Your task to perform on an android device: Show me the alarms in the clock app Image 0: 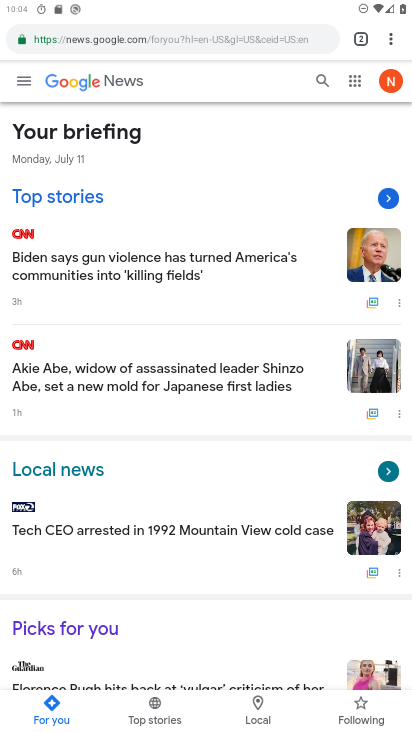
Step 0: press home button
Your task to perform on an android device: Show me the alarms in the clock app Image 1: 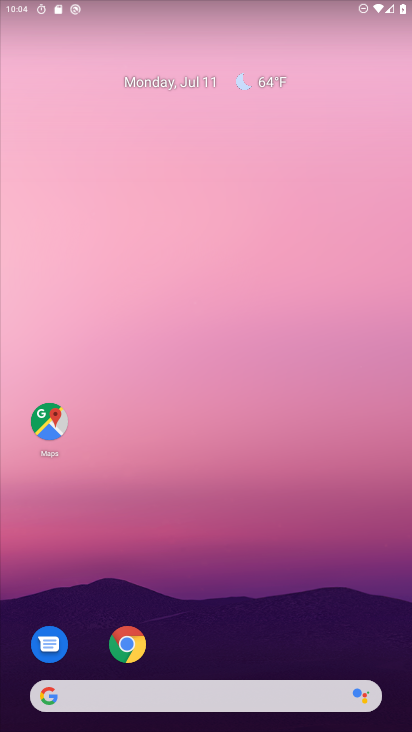
Step 1: drag from (311, 580) to (255, 191)
Your task to perform on an android device: Show me the alarms in the clock app Image 2: 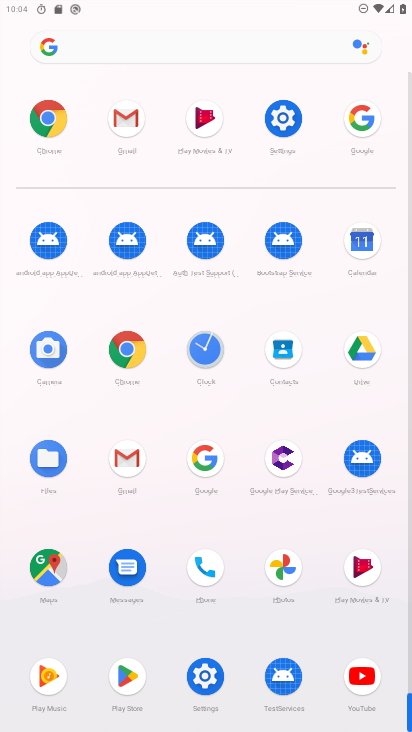
Step 2: click (214, 346)
Your task to perform on an android device: Show me the alarms in the clock app Image 3: 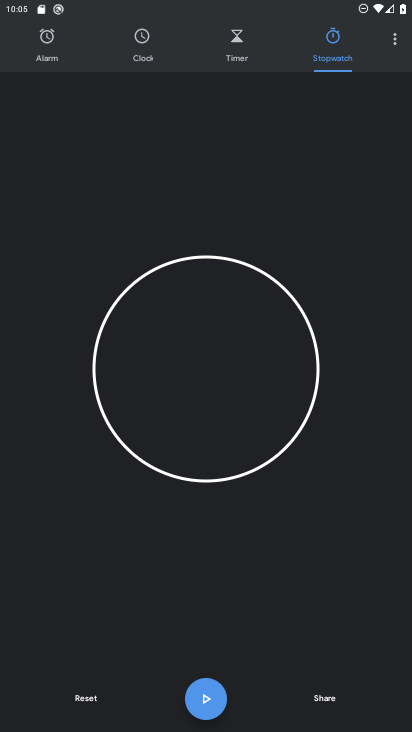
Step 3: click (57, 60)
Your task to perform on an android device: Show me the alarms in the clock app Image 4: 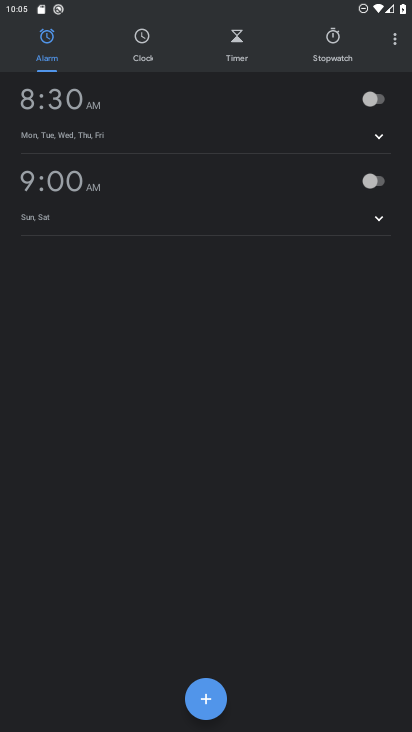
Step 4: task complete